Your task to perform on an android device: turn on priority inbox in the gmail app Image 0: 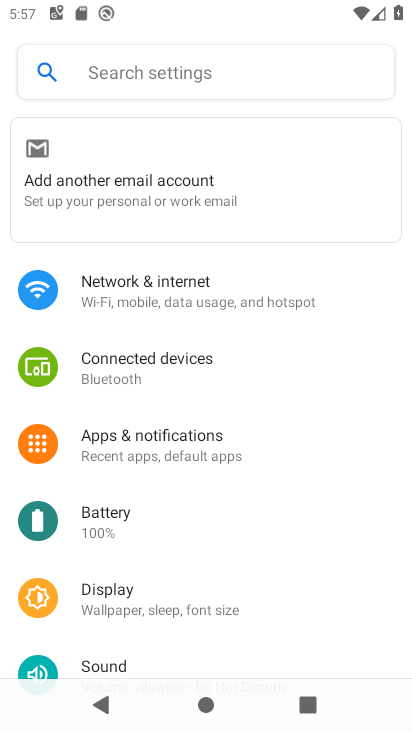
Step 0: press home button
Your task to perform on an android device: turn on priority inbox in the gmail app Image 1: 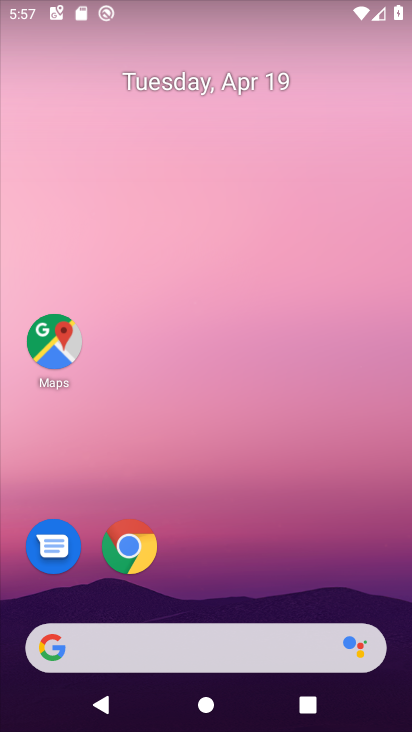
Step 1: drag from (254, 535) to (252, 112)
Your task to perform on an android device: turn on priority inbox in the gmail app Image 2: 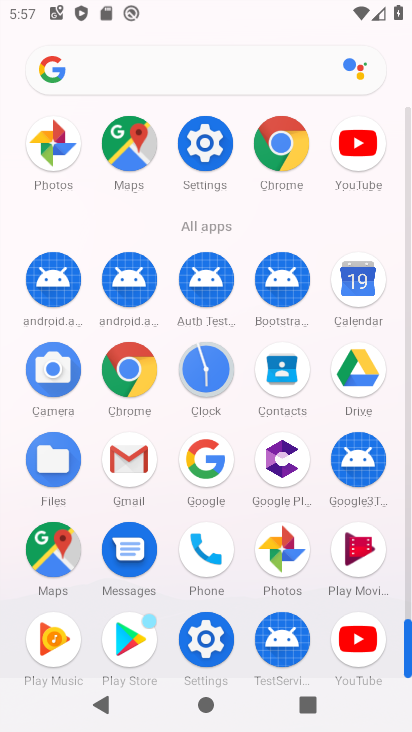
Step 2: click (125, 467)
Your task to perform on an android device: turn on priority inbox in the gmail app Image 3: 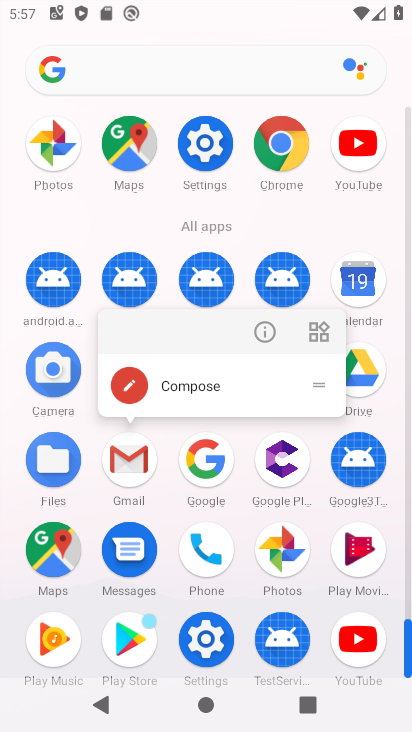
Step 3: click (130, 461)
Your task to perform on an android device: turn on priority inbox in the gmail app Image 4: 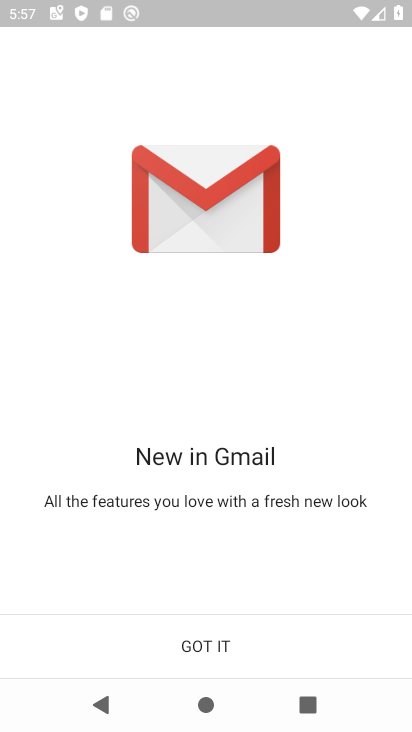
Step 4: click (234, 649)
Your task to perform on an android device: turn on priority inbox in the gmail app Image 5: 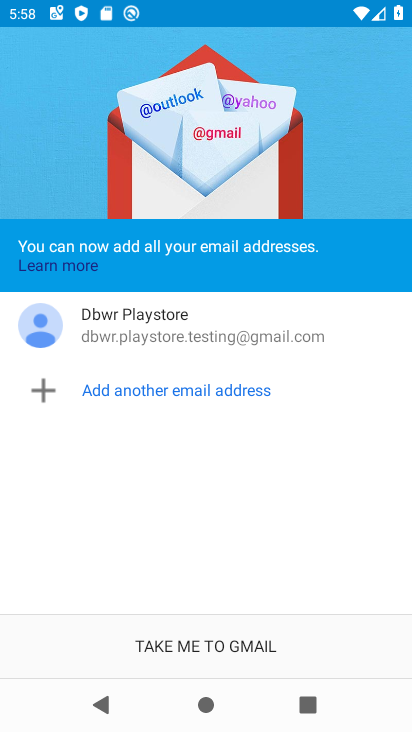
Step 5: click (234, 648)
Your task to perform on an android device: turn on priority inbox in the gmail app Image 6: 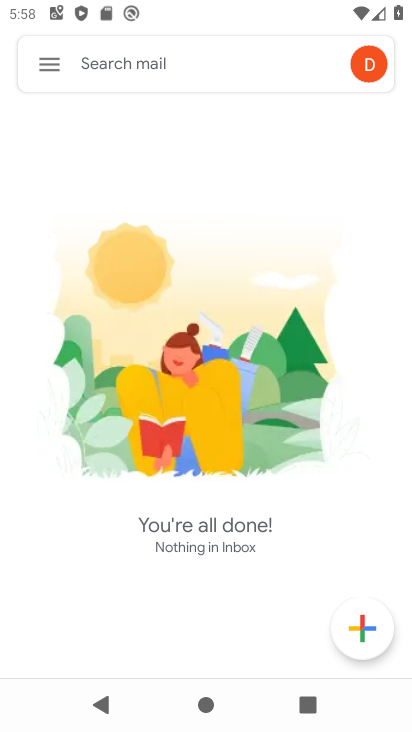
Step 6: click (37, 61)
Your task to perform on an android device: turn on priority inbox in the gmail app Image 7: 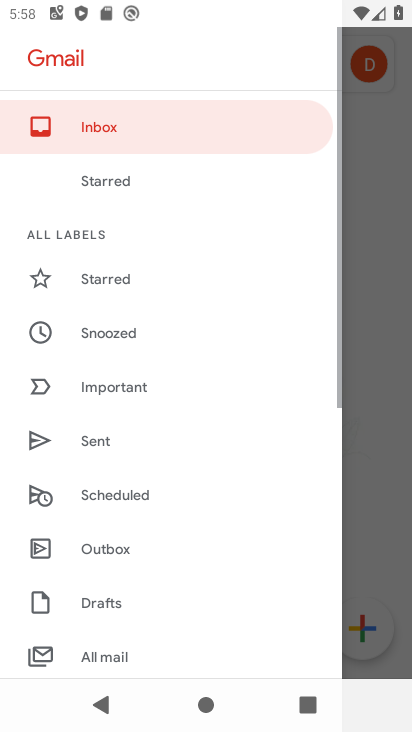
Step 7: drag from (164, 443) to (259, 64)
Your task to perform on an android device: turn on priority inbox in the gmail app Image 8: 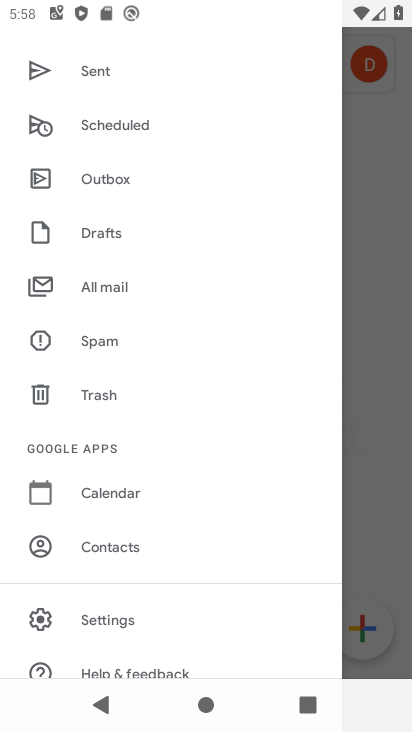
Step 8: click (106, 615)
Your task to perform on an android device: turn on priority inbox in the gmail app Image 9: 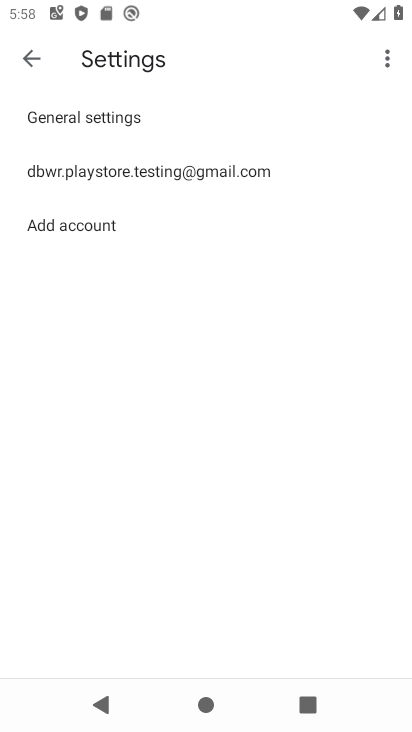
Step 9: click (173, 167)
Your task to perform on an android device: turn on priority inbox in the gmail app Image 10: 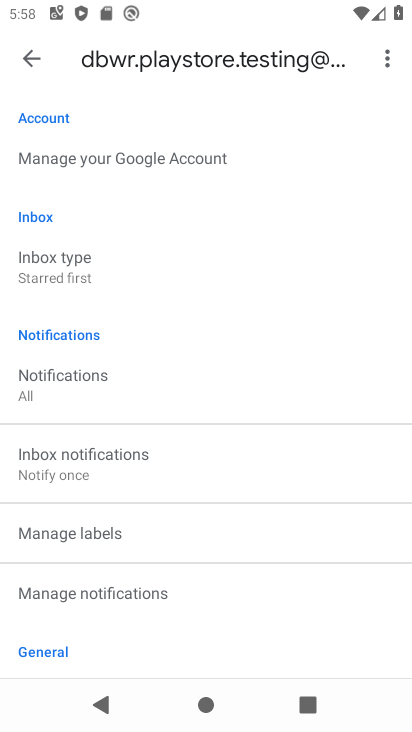
Step 10: click (46, 262)
Your task to perform on an android device: turn on priority inbox in the gmail app Image 11: 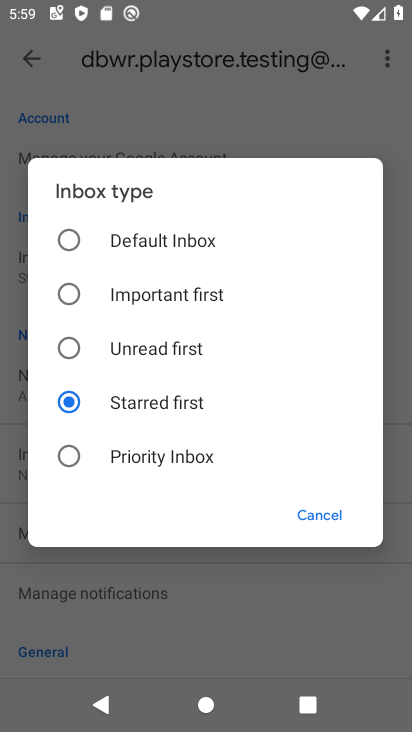
Step 11: task complete